Your task to perform on an android device: Open accessibility settings Image 0: 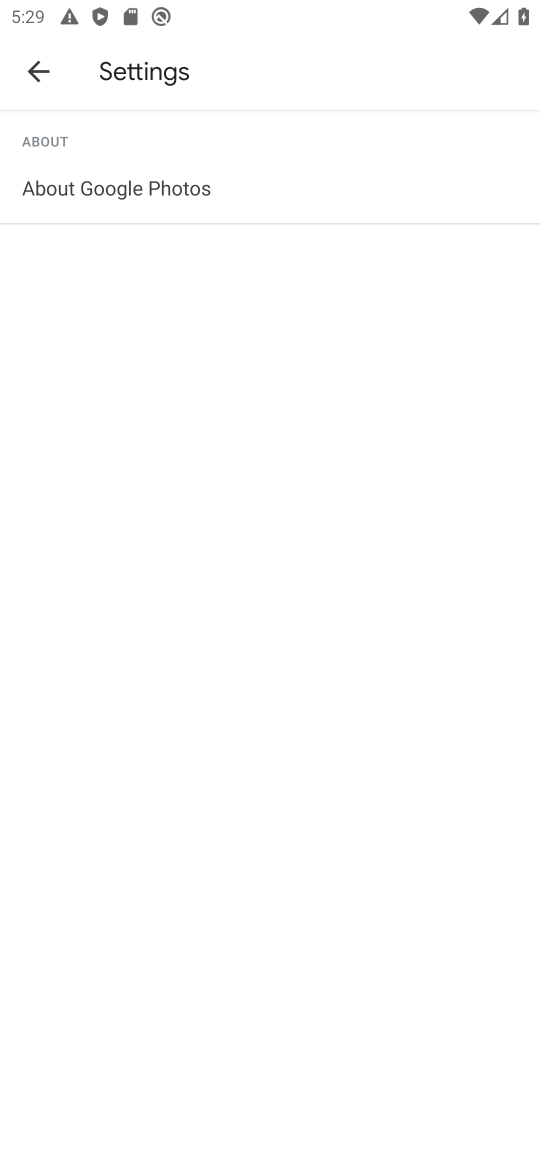
Step 0: press home button
Your task to perform on an android device: Open accessibility settings Image 1: 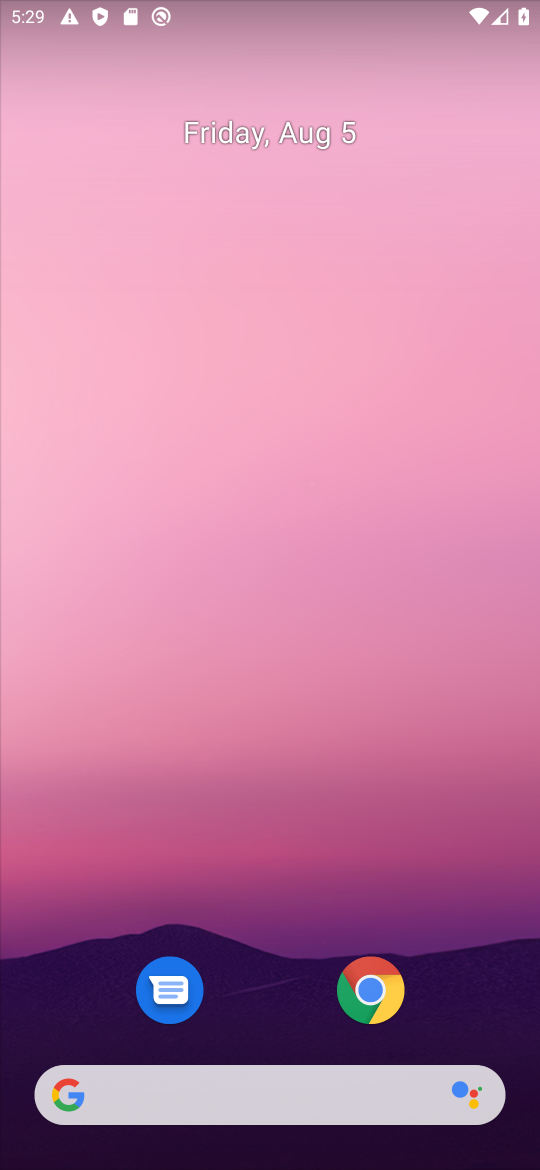
Step 1: drag from (282, 1057) to (283, 570)
Your task to perform on an android device: Open accessibility settings Image 2: 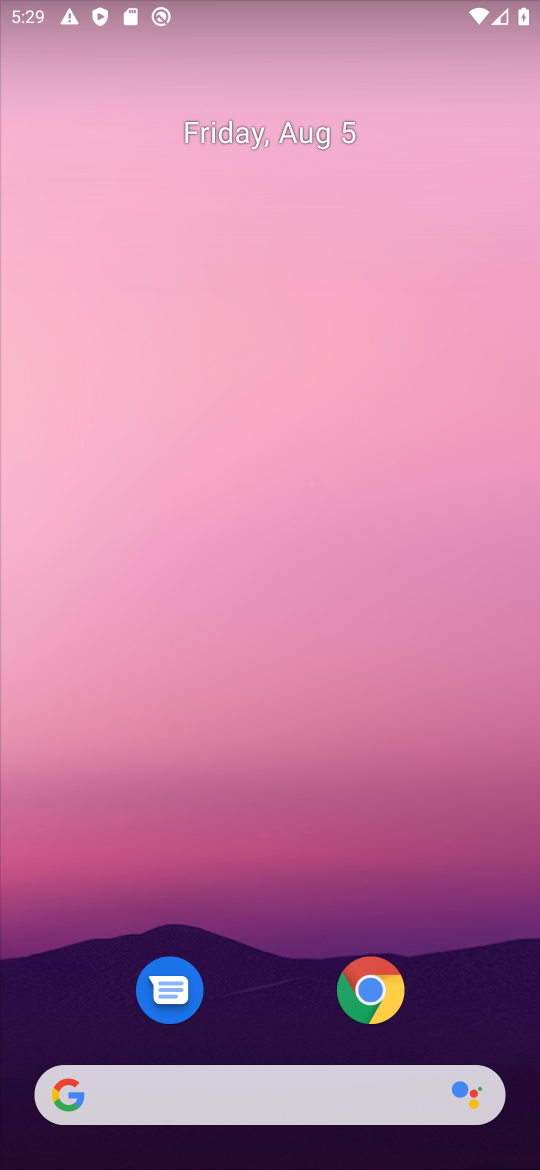
Step 2: drag from (233, 918) to (196, 461)
Your task to perform on an android device: Open accessibility settings Image 3: 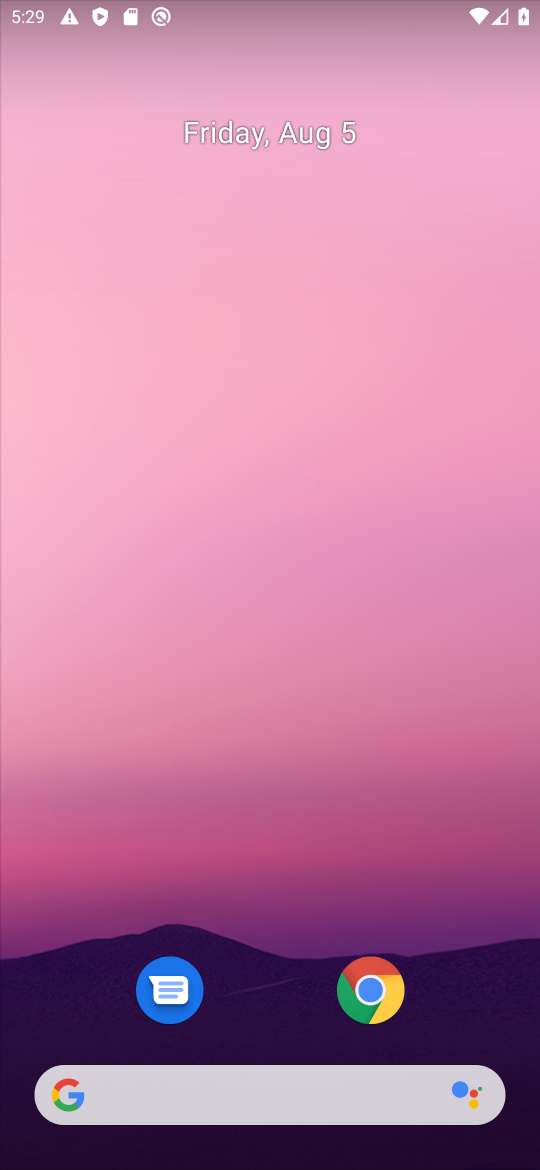
Step 3: drag from (254, 730) to (250, 454)
Your task to perform on an android device: Open accessibility settings Image 4: 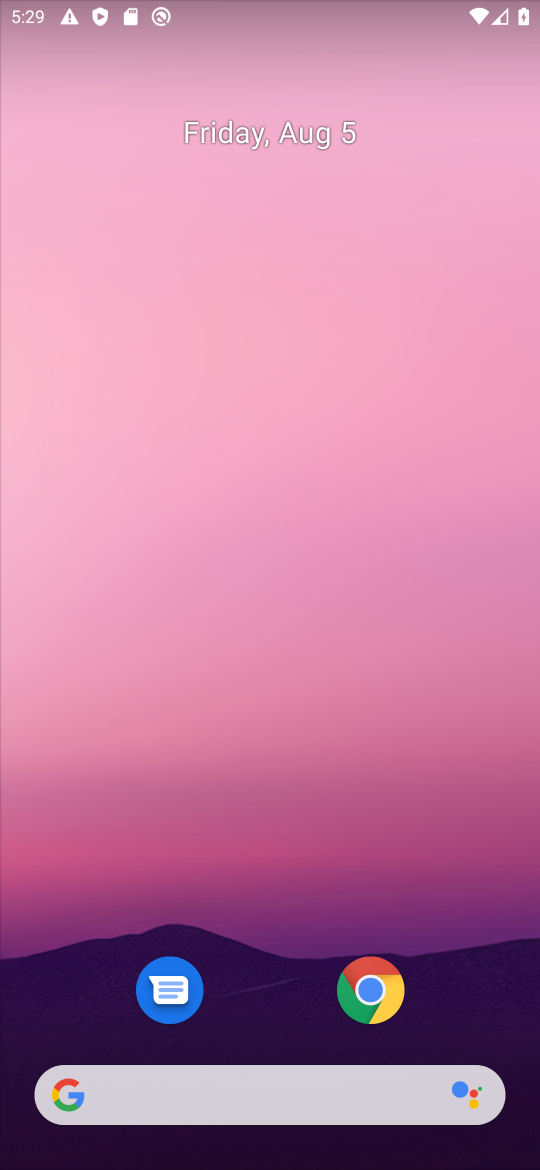
Step 4: drag from (250, 951) to (219, 487)
Your task to perform on an android device: Open accessibility settings Image 5: 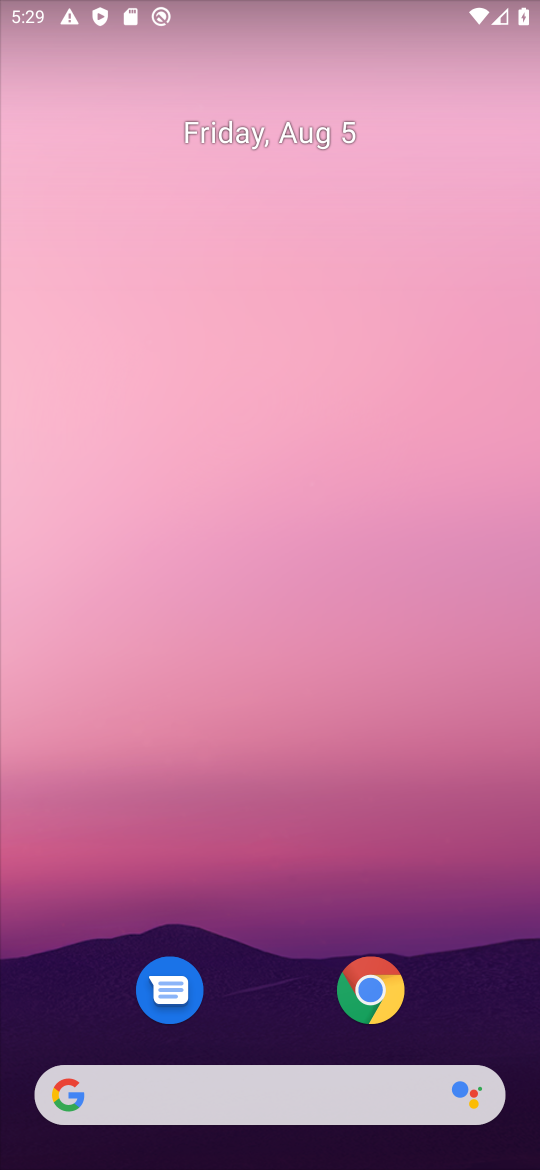
Step 5: drag from (220, 944) to (234, 487)
Your task to perform on an android device: Open accessibility settings Image 6: 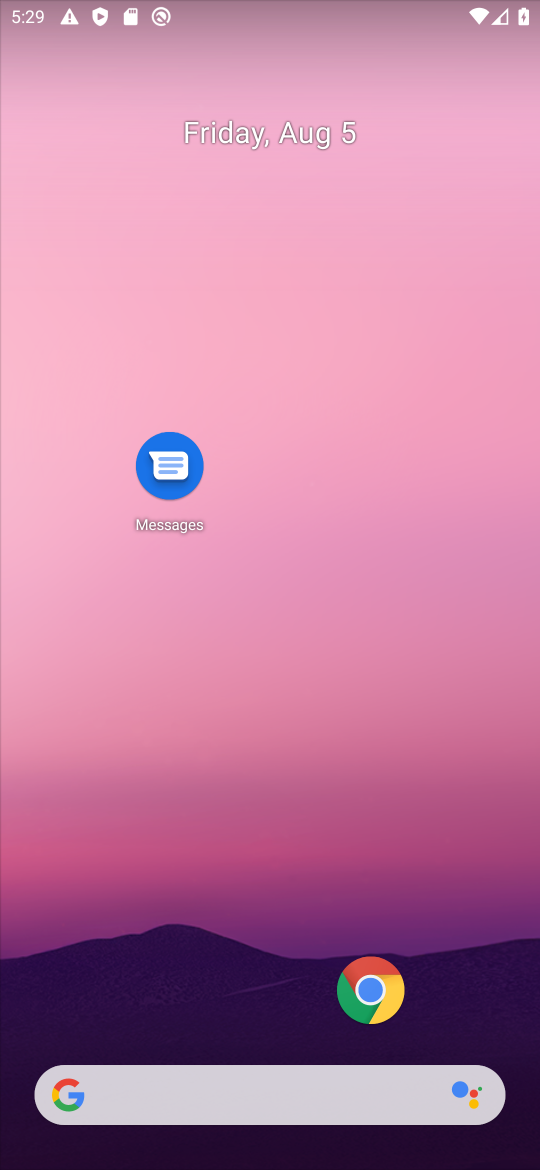
Step 6: drag from (217, 1067) to (228, 525)
Your task to perform on an android device: Open accessibility settings Image 7: 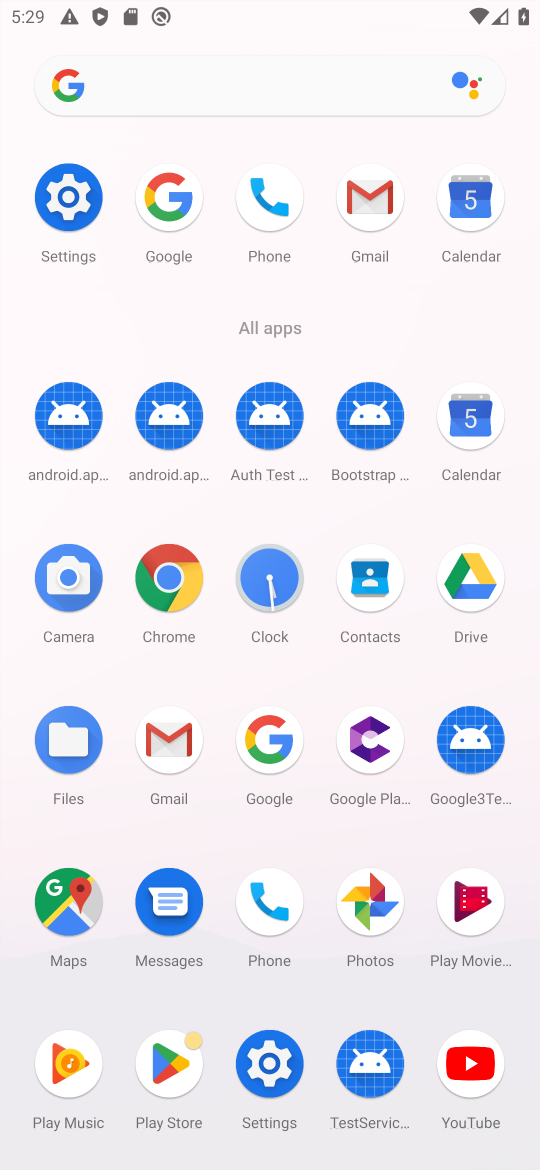
Step 7: click (63, 206)
Your task to perform on an android device: Open accessibility settings Image 8: 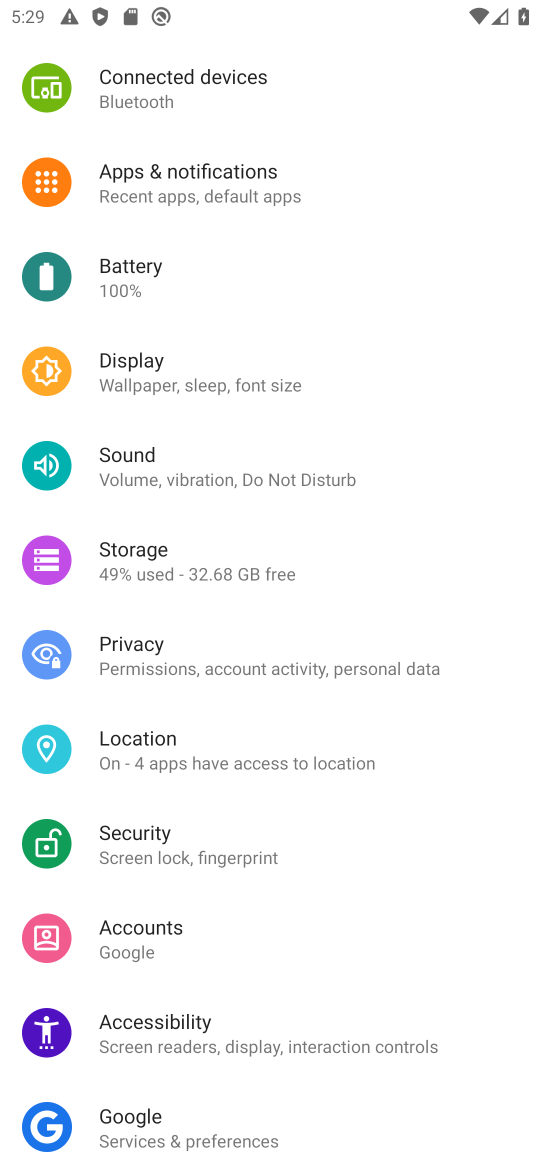
Step 8: click (196, 1021)
Your task to perform on an android device: Open accessibility settings Image 9: 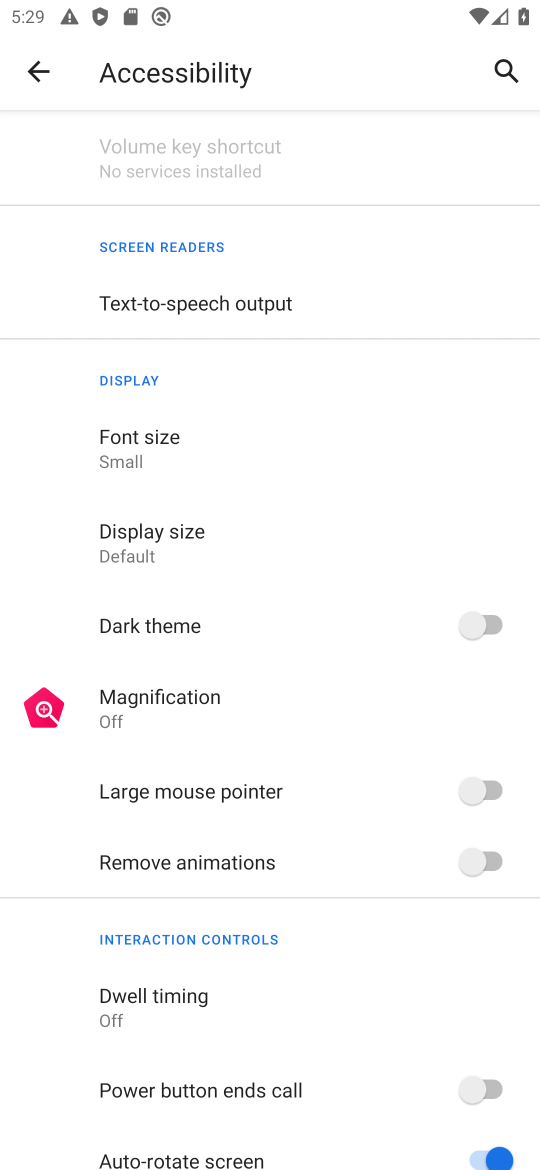
Step 9: task complete